Your task to perform on an android device: Open calendar and show me the second week of next month Image 0: 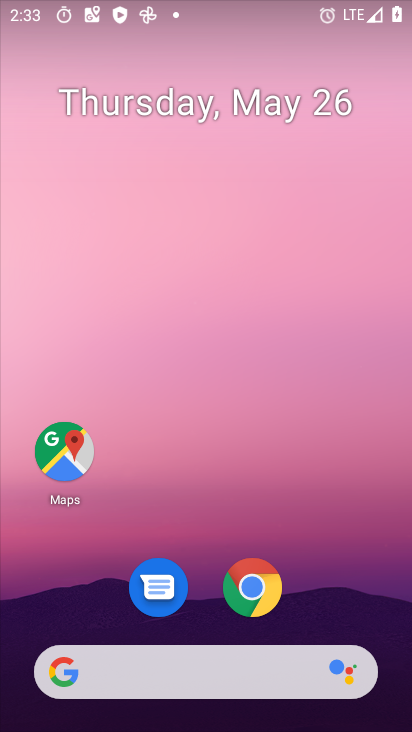
Step 0: drag from (370, 608) to (369, 221)
Your task to perform on an android device: Open calendar and show me the second week of next month Image 1: 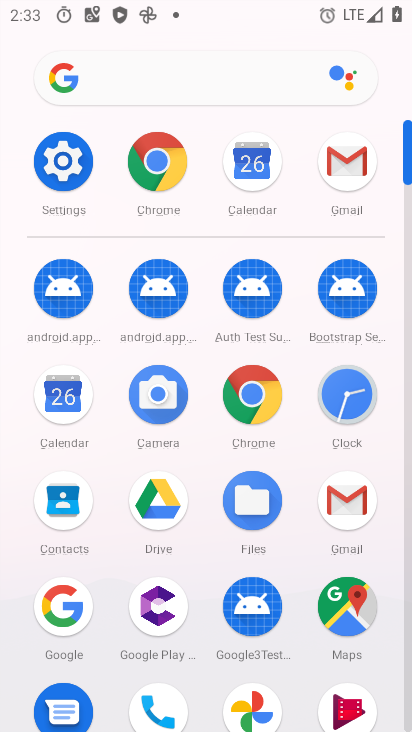
Step 1: click (52, 395)
Your task to perform on an android device: Open calendar and show me the second week of next month Image 2: 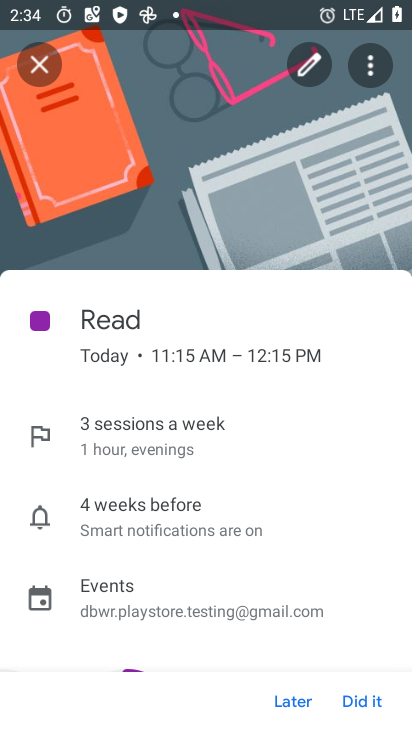
Step 2: click (57, 51)
Your task to perform on an android device: Open calendar and show me the second week of next month Image 3: 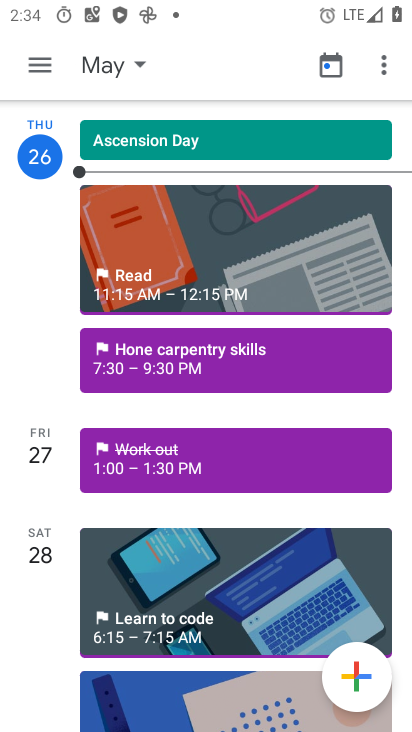
Step 3: click (142, 71)
Your task to perform on an android device: Open calendar and show me the second week of next month Image 4: 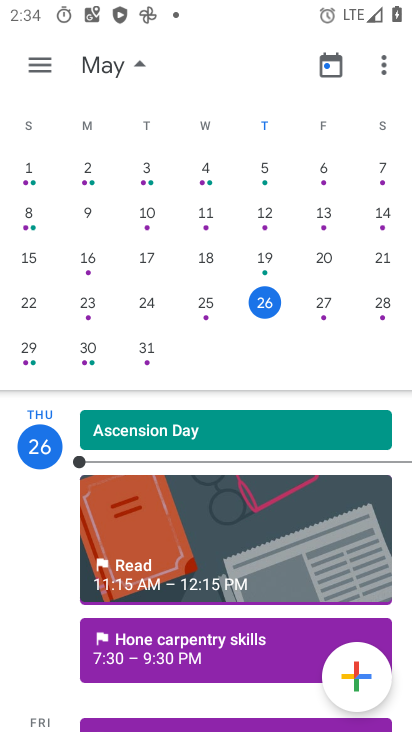
Step 4: drag from (395, 143) to (14, 142)
Your task to perform on an android device: Open calendar and show me the second week of next month Image 5: 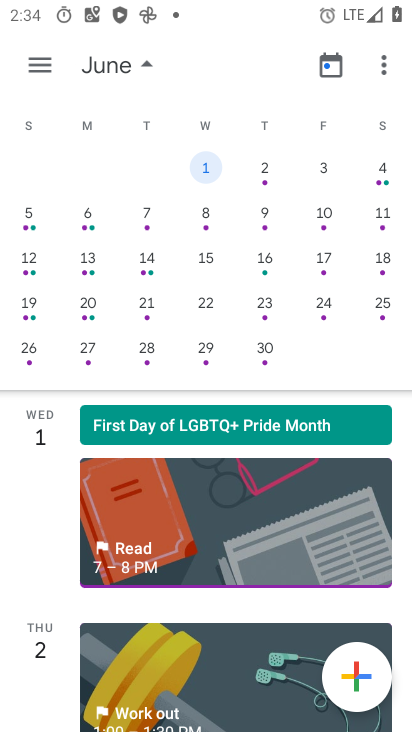
Step 5: click (85, 222)
Your task to perform on an android device: Open calendar and show me the second week of next month Image 6: 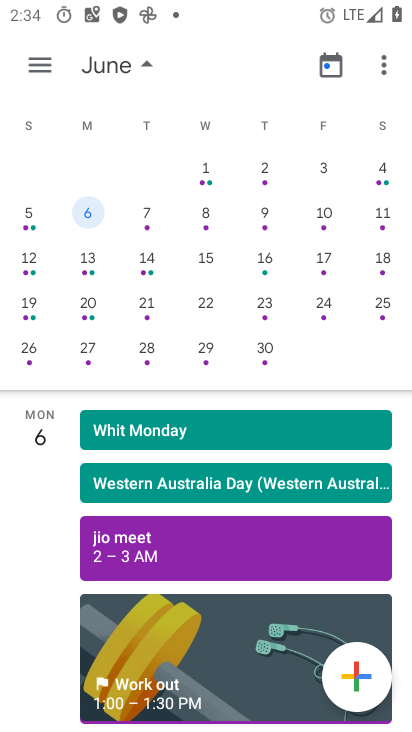
Step 6: task complete